Your task to perform on an android device: open a bookmark in the chrome app Image 0: 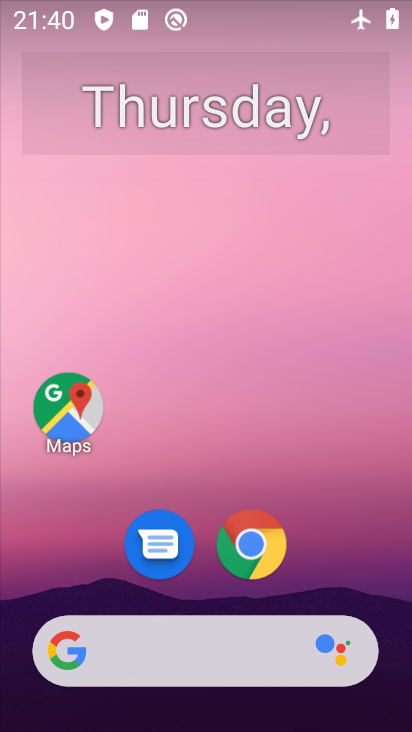
Step 0: click (250, 550)
Your task to perform on an android device: open a bookmark in the chrome app Image 1: 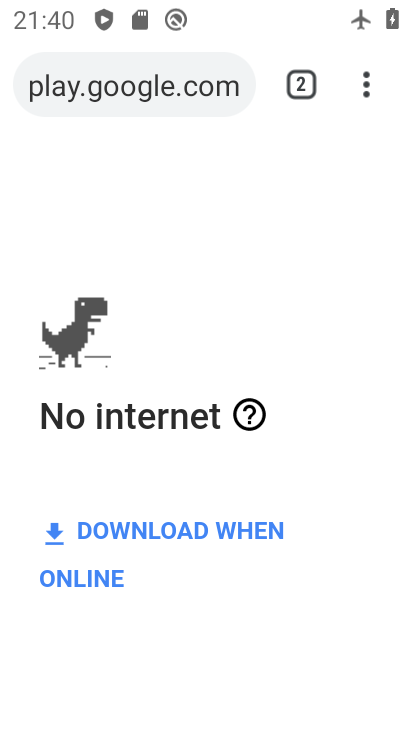
Step 1: click (368, 80)
Your task to perform on an android device: open a bookmark in the chrome app Image 2: 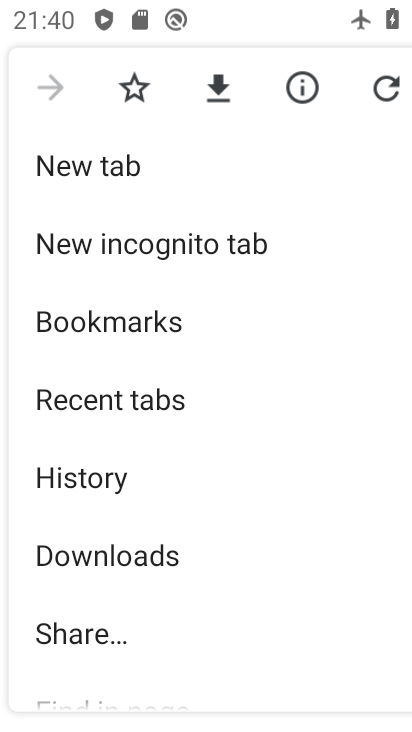
Step 2: click (189, 319)
Your task to perform on an android device: open a bookmark in the chrome app Image 3: 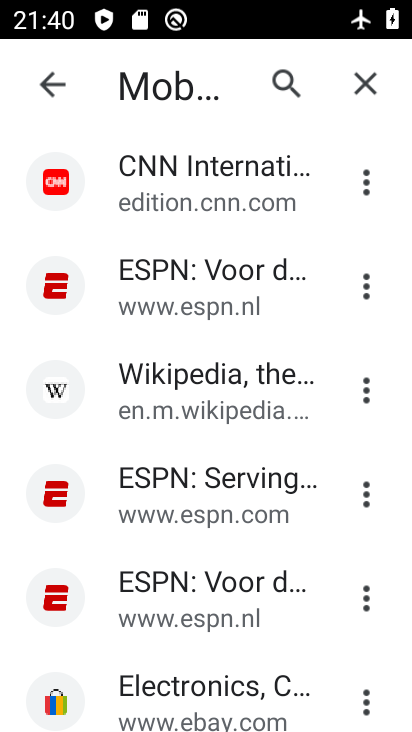
Step 3: click (254, 290)
Your task to perform on an android device: open a bookmark in the chrome app Image 4: 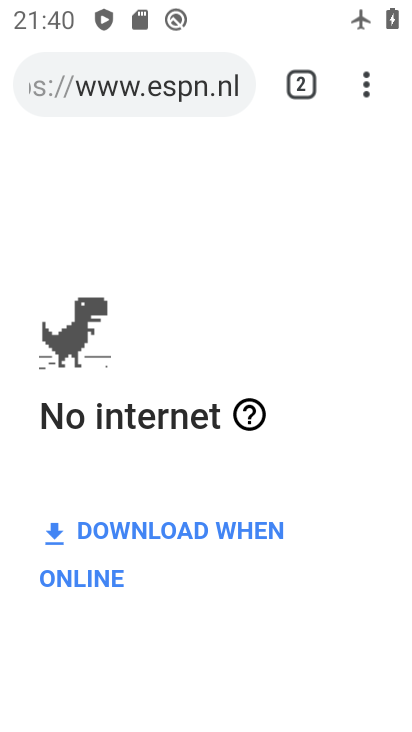
Step 4: task complete